Your task to perform on an android device: What's on my calendar tomorrow? Image 0: 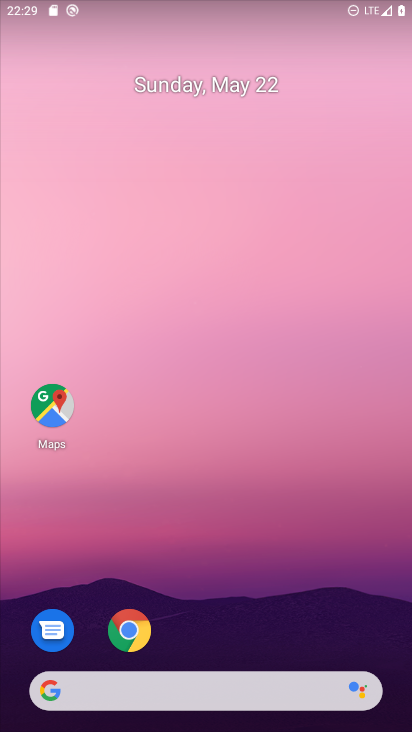
Step 0: press home button
Your task to perform on an android device: What's on my calendar tomorrow? Image 1: 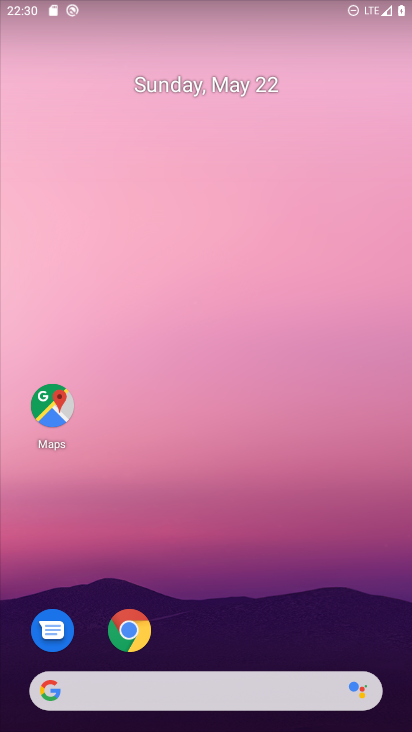
Step 1: drag from (136, 687) to (178, 61)
Your task to perform on an android device: What's on my calendar tomorrow? Image 2: 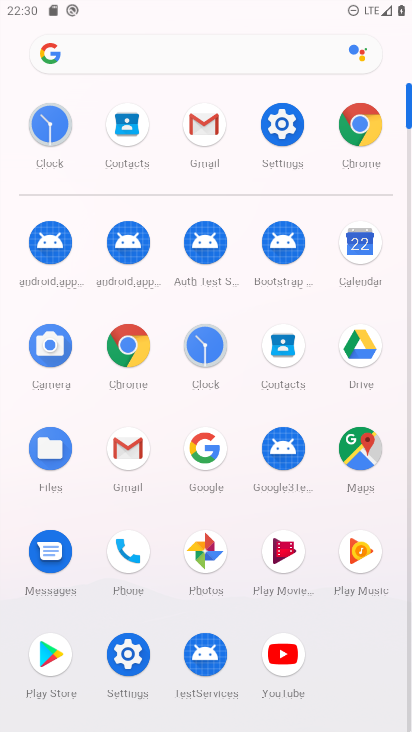
Step 2: click (363, 256)
Your task to perform on an android device: What's on my calendar tomorrow? Image 3: 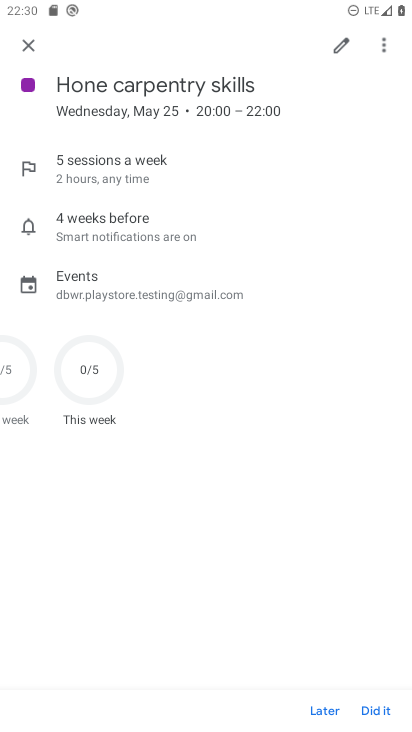
Step 3: click (21, 40)
Your task to perform on an android device: What's on my calendar tomorrow? Image 4: 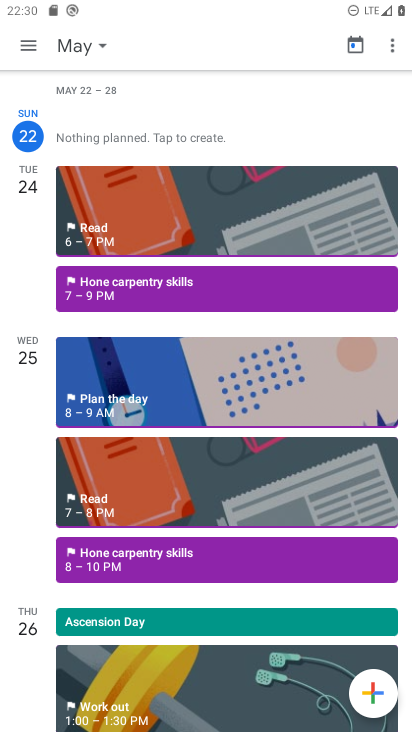
Step 4: click (76, 44)
Your task to perform on an android device: What's on my calendar tomorrow? Image 5: 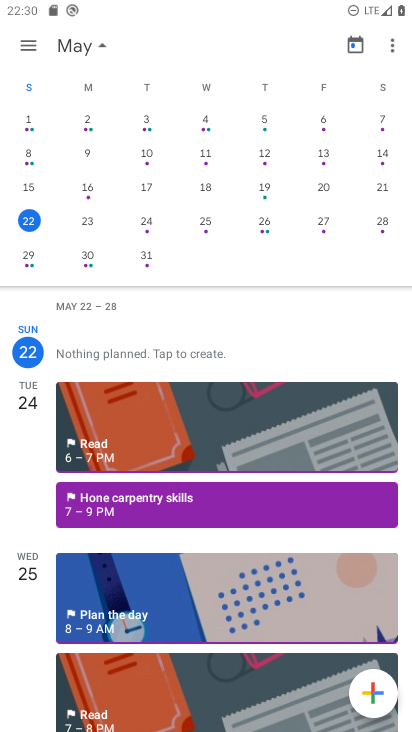
Step 5: click (92, 222)
Your task to perform on an android device: What's on my calendar tomorrow? Image 6: 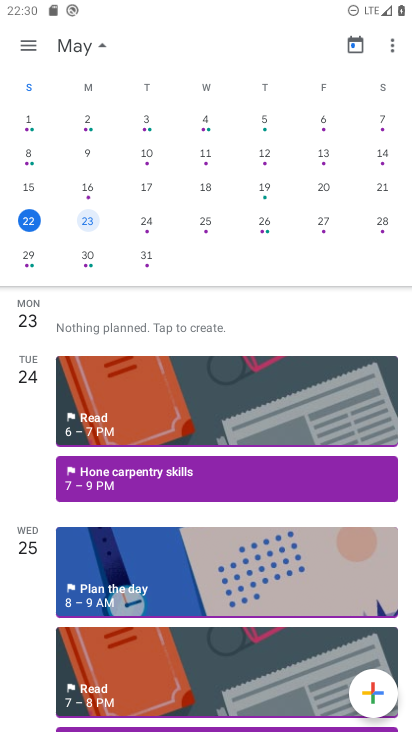
Step 6: click (33, 44)
Your task to perform on an android device: What's on my calendar tomorrow? Image 7: 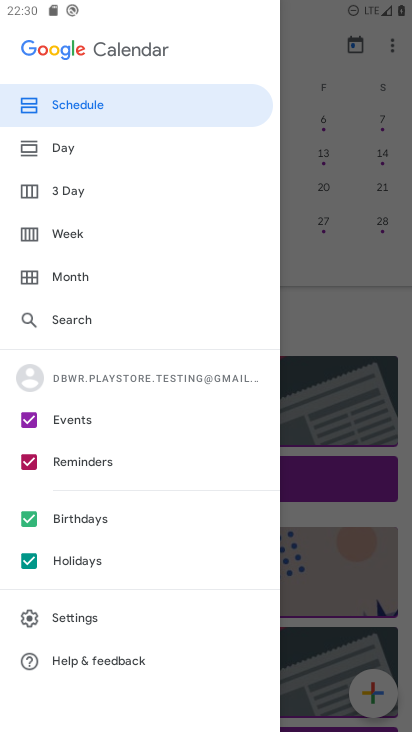
Step 7: click (82, 106)
Your task to perform on an android device: What's on my calendar tomorrow? Image 8: 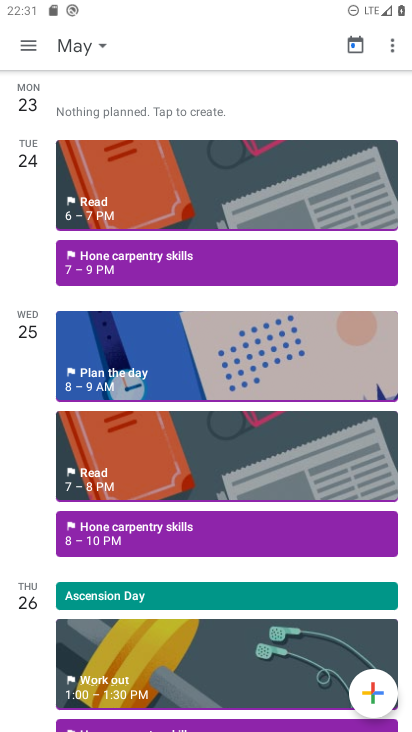
Step 8: task complete